Your task to perform on an android device: toggle show notifications on the lock screen Image 0: 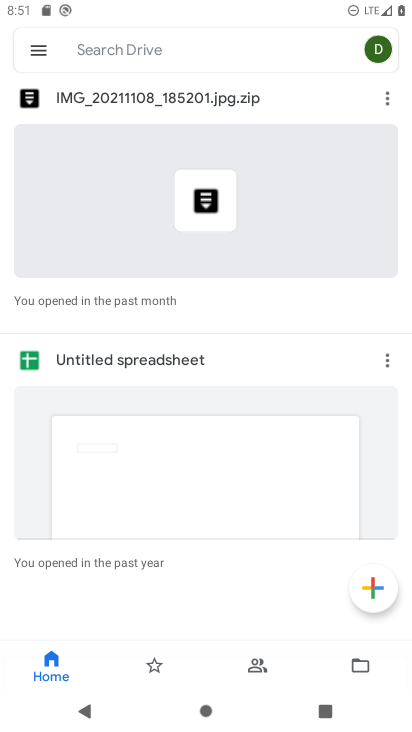
Step 0: press home button
Your task to perform on an android device: toggle show notifications on the lock screen Image 1: 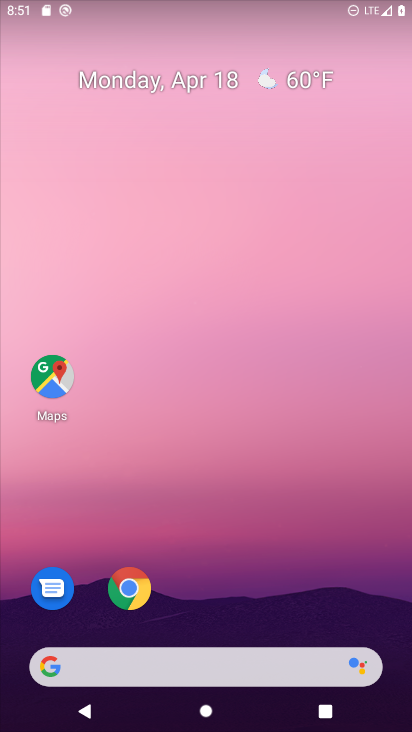
Step 1: drag from (389, 626) to (324, 194)
Your task to perform on an android device: toggle show notifications on the lock screen Image 2: 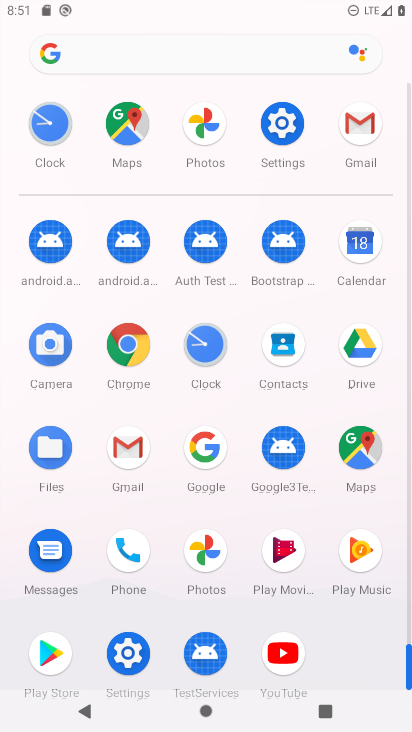
Step 2: click (124, 653)
Your task to perform on an android device: toggle show notifications on the lock screen Image 3: 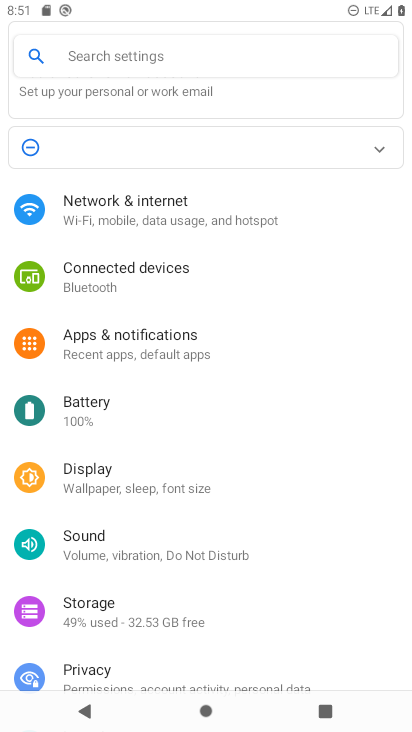
Step 3: click (122, 347)
Your task to perform on an android device: toggle show notifications on the lock screen Image 4: 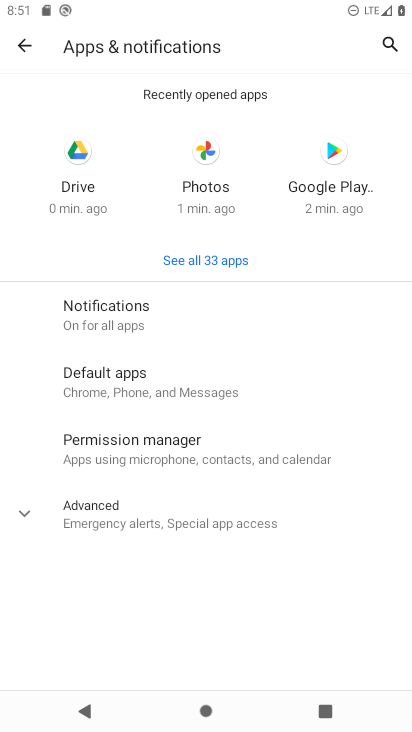
Step 4: click (101, 308)
Your task to perform on an android device: toggle show notifications on the lock screen Image 5: 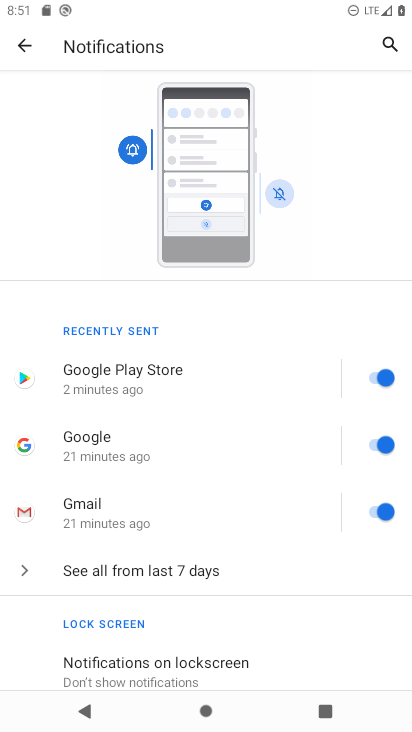
Step 5: drag from (293, 623) to (297, 320)
Your task to perform on an android device: toggle show notifications on the lock screen Image 6: 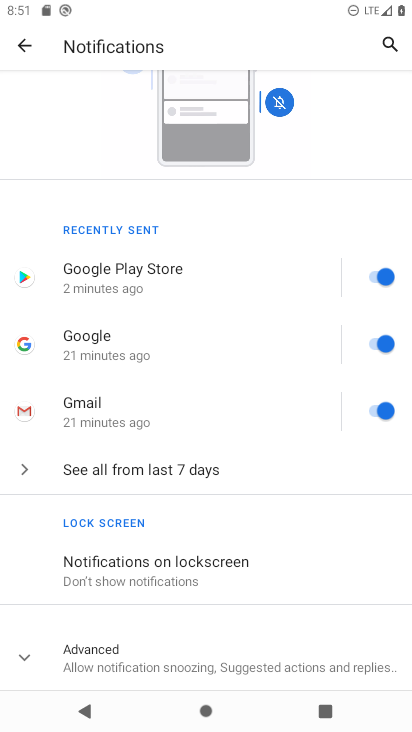
Step 6: click (120, 565)
Your task to perform on an android device: toggle show notifications on the lock screen Image 7: 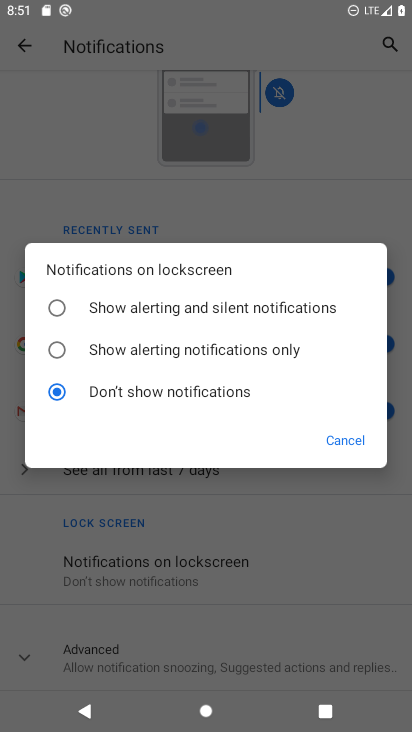
Step 7: click (53, 310)
Your task to perform on an android device: toggle show notifications on the lock screen Image 8: 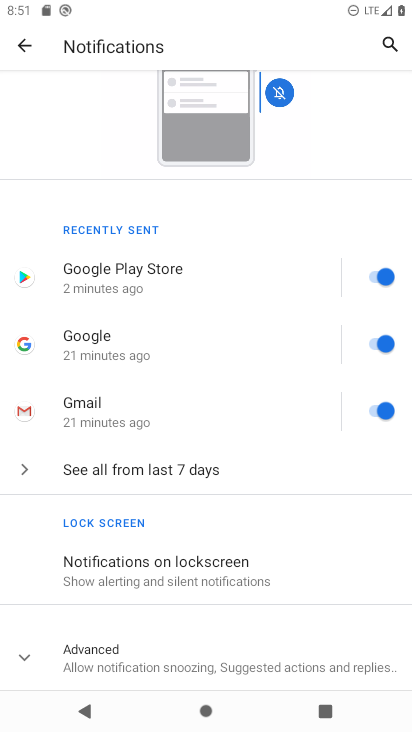
Step 8: task complete